Your task to perform on an android device: open chrome privacy settings Image 0: 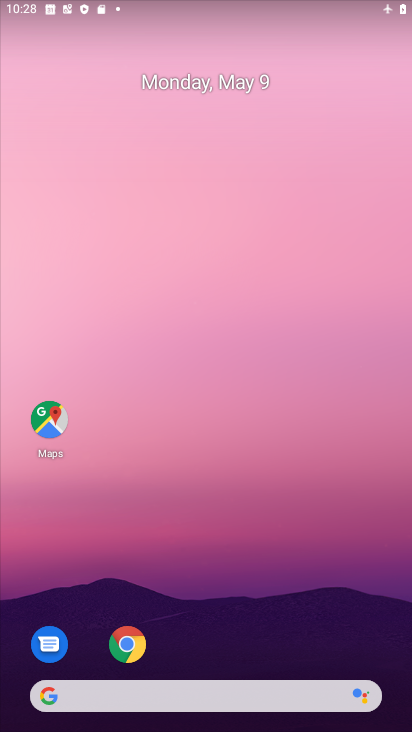
Step 0: drag from (258, 666) to (309, 32)
Your task to perform on an android device: open chrome privacy settings Image 1: 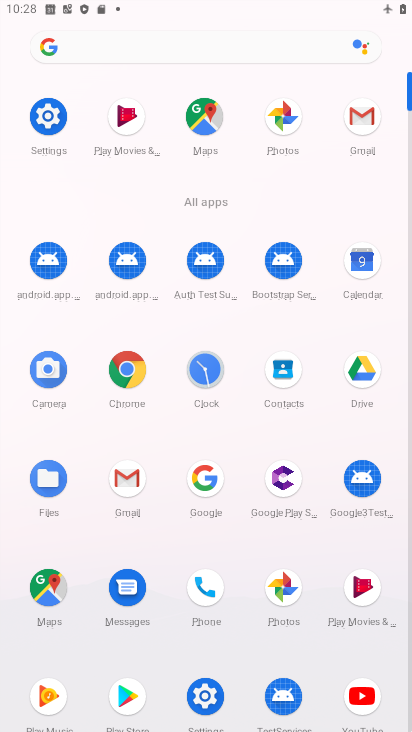
Step 1: click (133, 377)
Your task to perform on an android device: open chrome privacy settings Image 2: 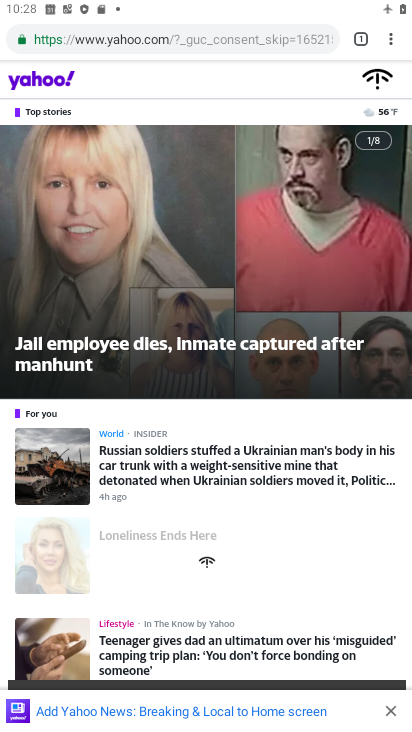
Step 2: click (398, 42)
Your task to perform on an android device: open chrome privacy settings Image 3: 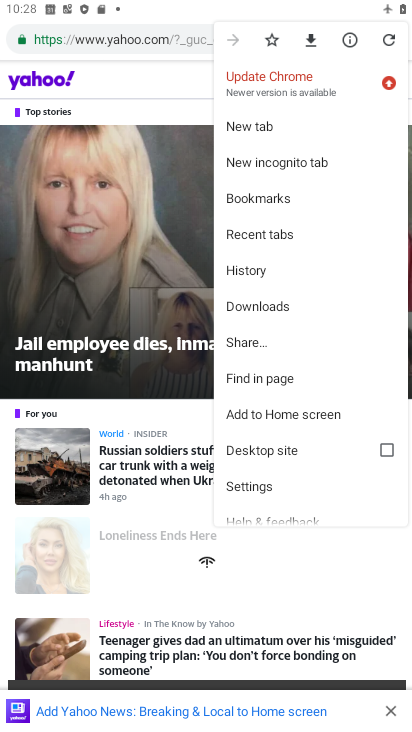
Step 3: click (262, 483)
Your task to perform on an android device: open chrome privacy settings Image 4: 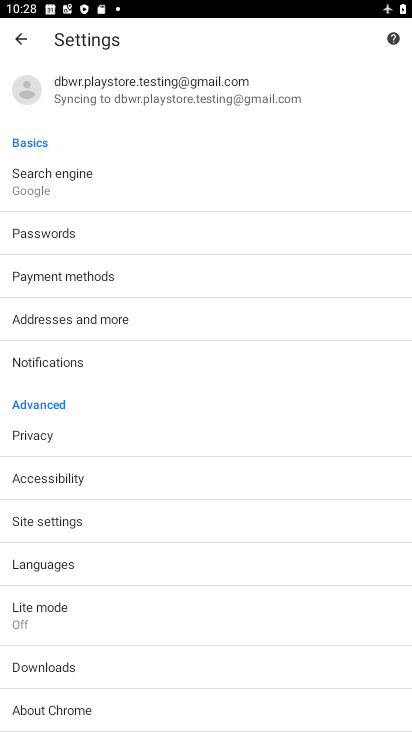
Step 4: click (40, 437)
Your task to perform on an android device: open chrome privacy settings Image 5: 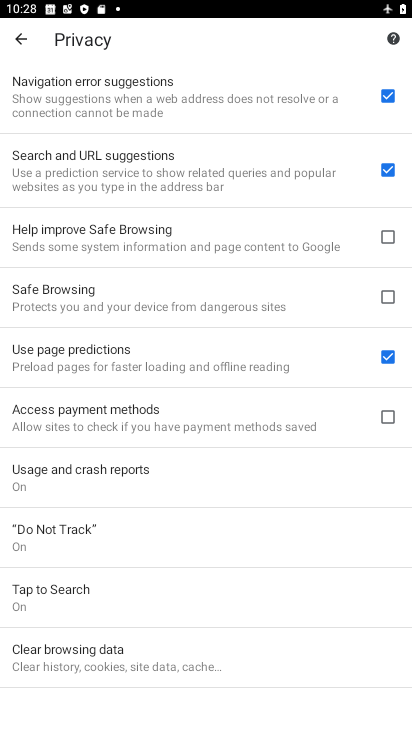
Step 5: task complete